Your task to perform on an android device: See recent photos Image 0: 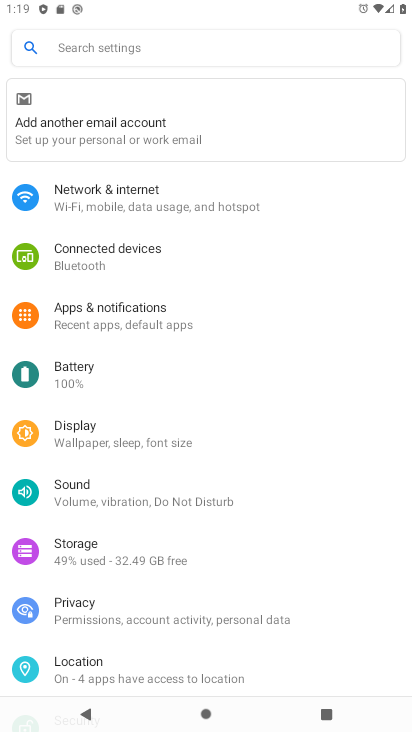
Step 0: press home button
Your task to perform on an android device: See recent photos Image 1: 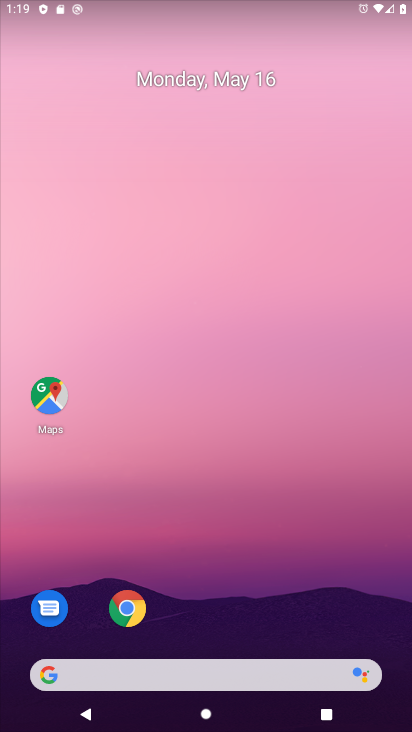
Step 1: drag from (231, 619) to (297, 98)
Your task to perform on an android device: See recent photos Image 2: 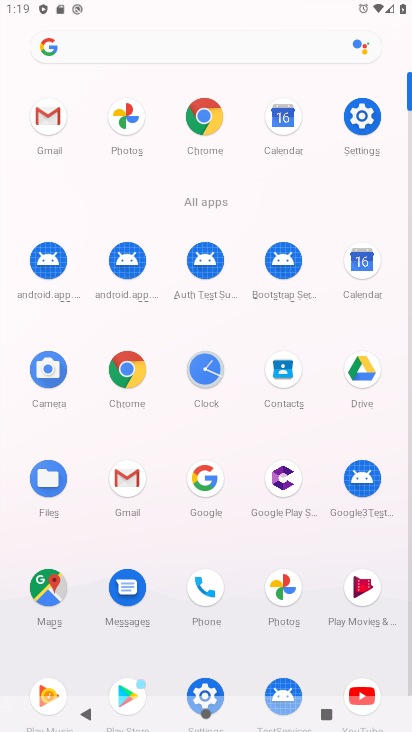
Step 2: drag from (248, 667) to (271, 422)
Your task to perform on an android device: See recent photos Image 3: 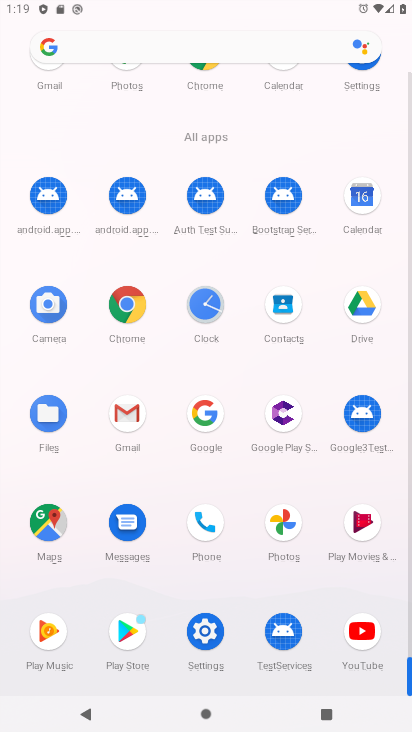
Step 3: click (289, 530)
Your task to perform on an android device: See recent photos Image 4: 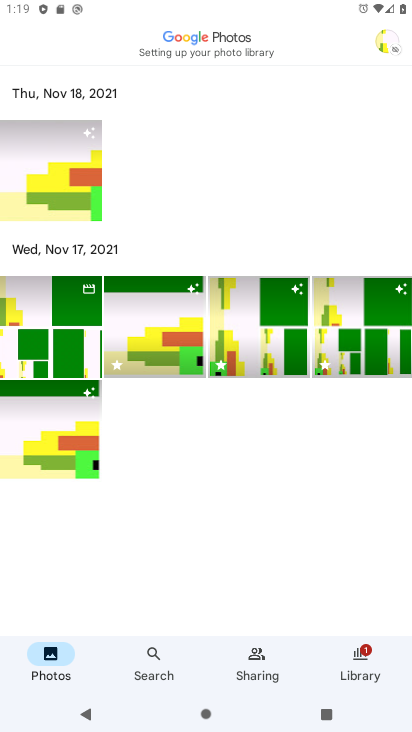
Step 4: task complete